Your task to perform on an android device: open a new tab in the chrome app Image 0: 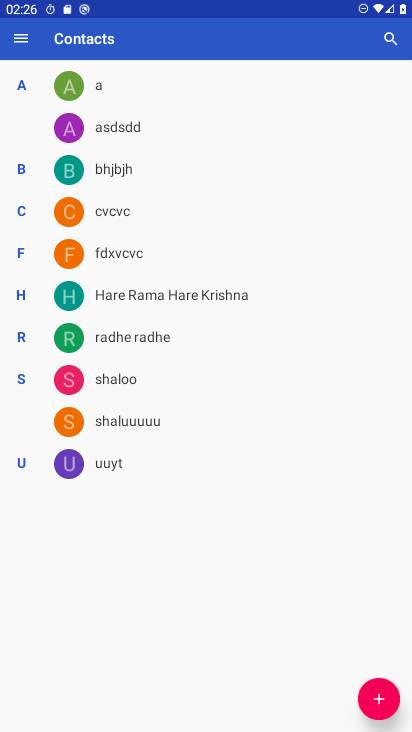
Step 0: press home button
Your task to perform on an android device: open a new tab in the chrome app Image 1: 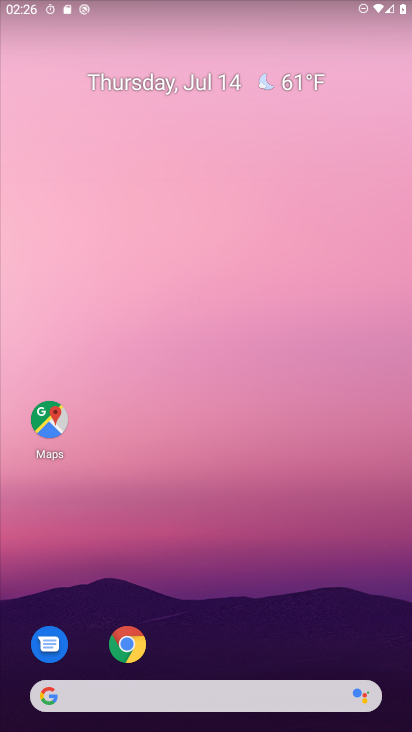
Step 1: click (128, 648)
Your task to perform on an android device: open a new tab in the chrome app Image 2: 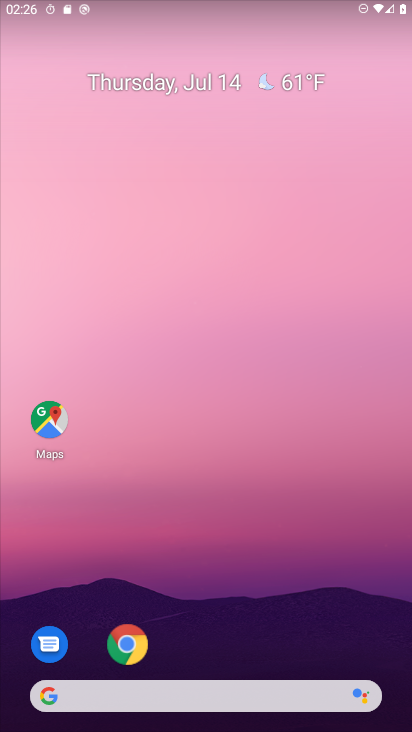
Step 2: click (127, 645)
Your task to perform on an android device: open a new tab in the chrome app Image 3: 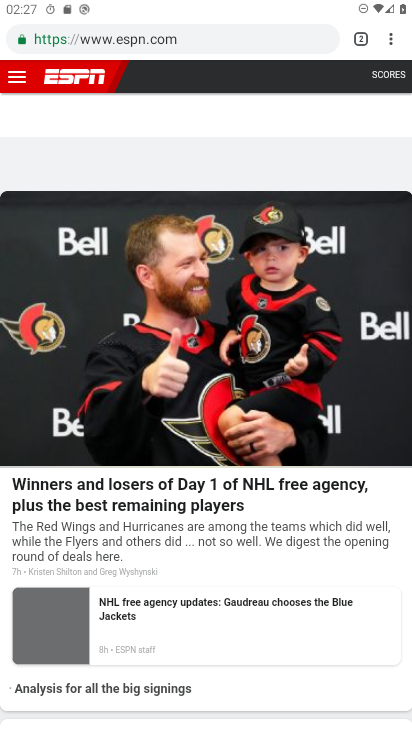
Step 3: task complete